Your task to perform on an android device: open app "PUBG MOBILE" Image 0: 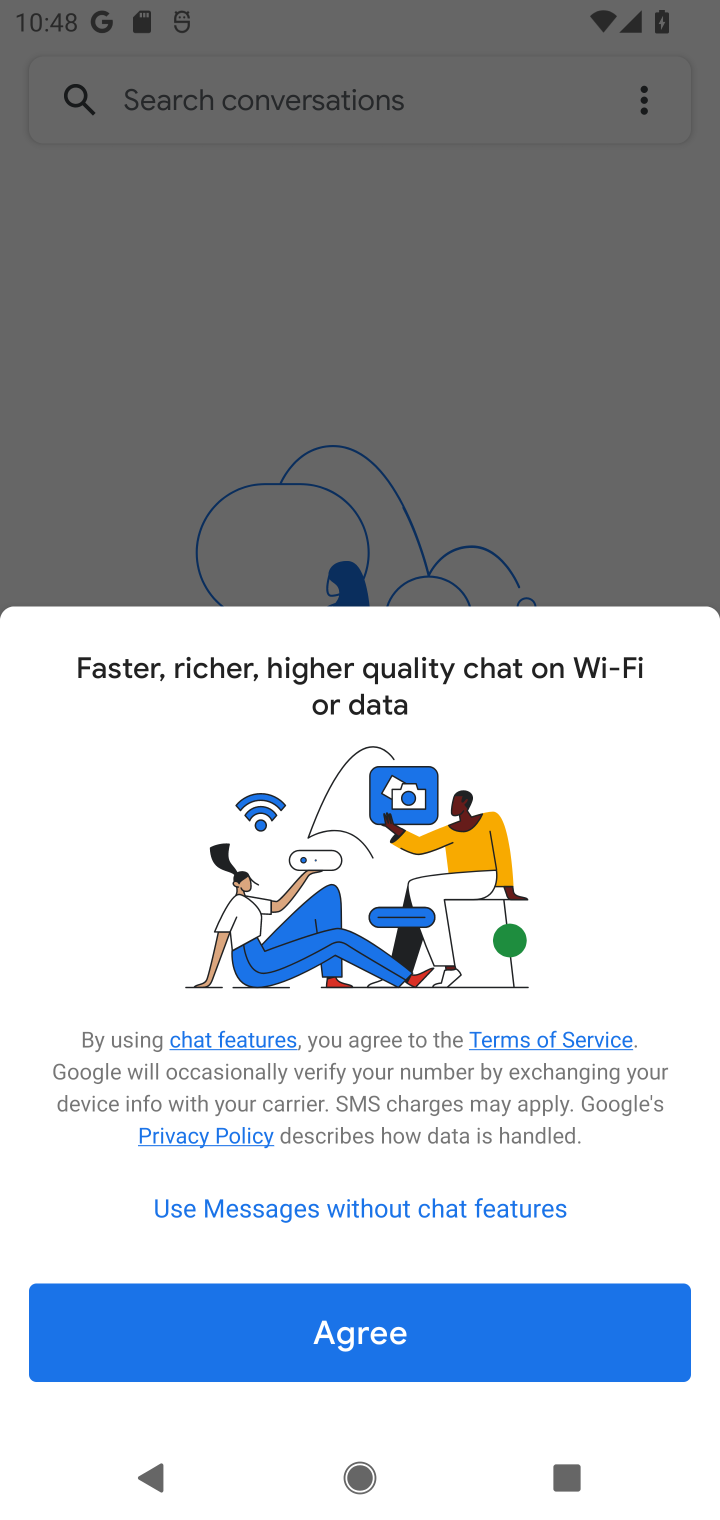
Step 0: press home button
Your task to perform on an android device: open app "PUBG MOBILE" Image 1: 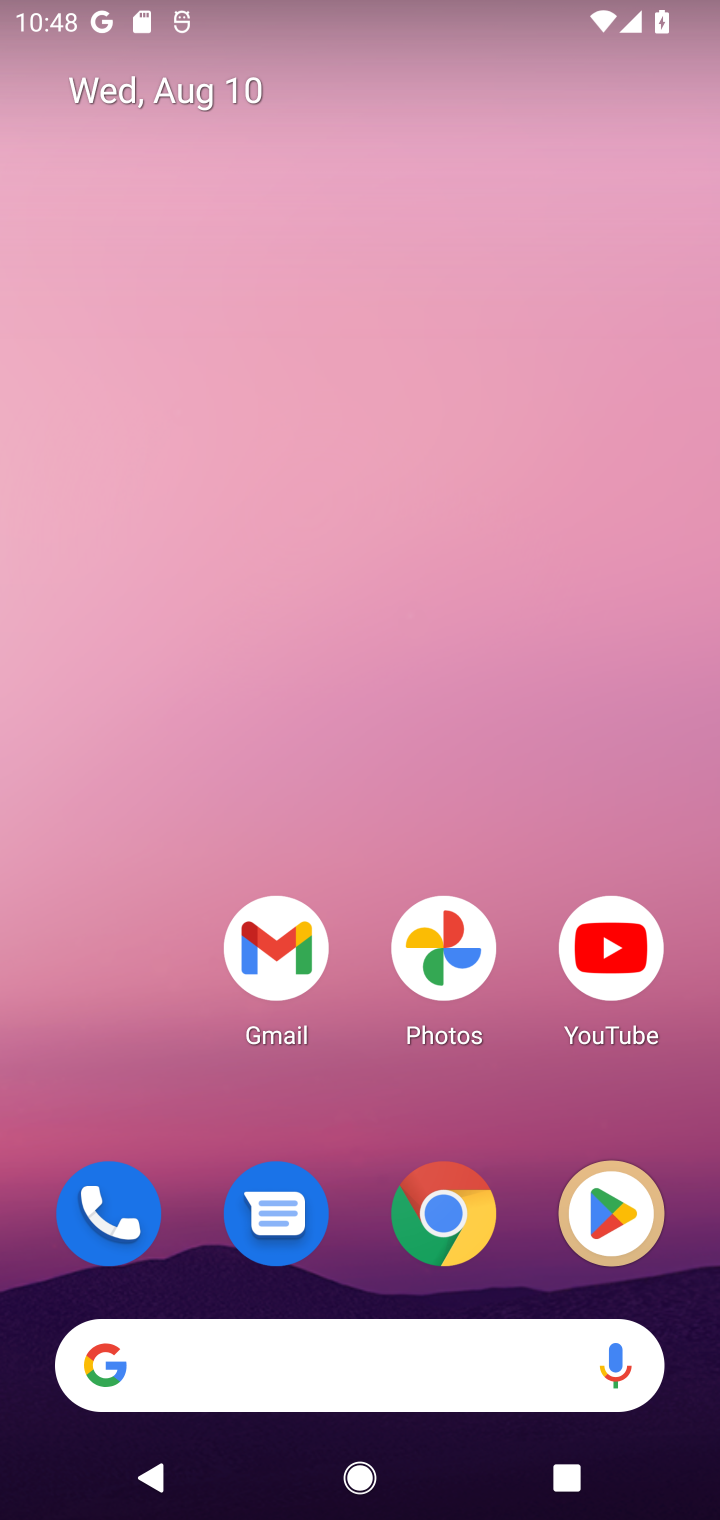
Step 1: drag from (240, 1365) to (265, 280)
Your task to perform on an android device: open app "PUBG MOBILE" Image 2: 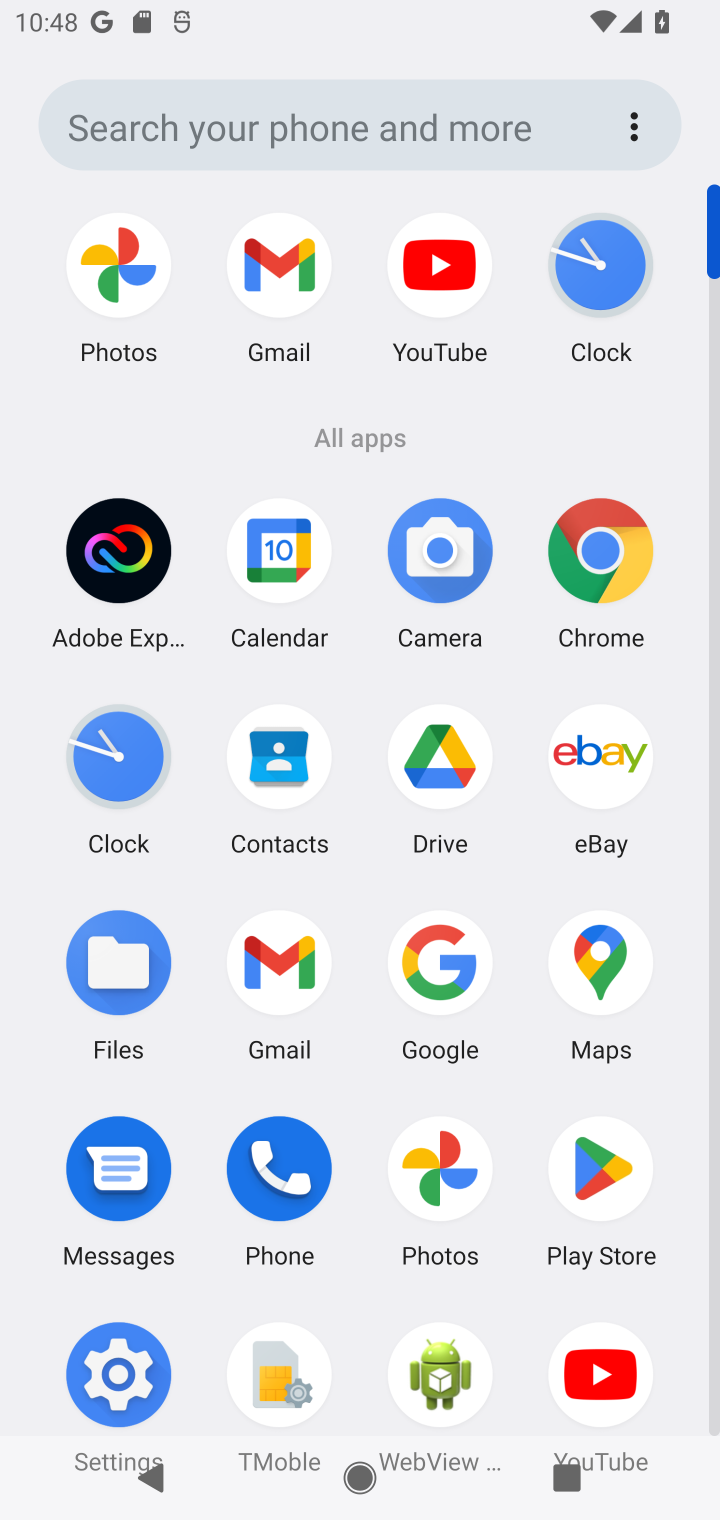
Step 2: click (601, 1174)
Your task to perform on an android device: open app "PUBG MOBILE" Image 3: 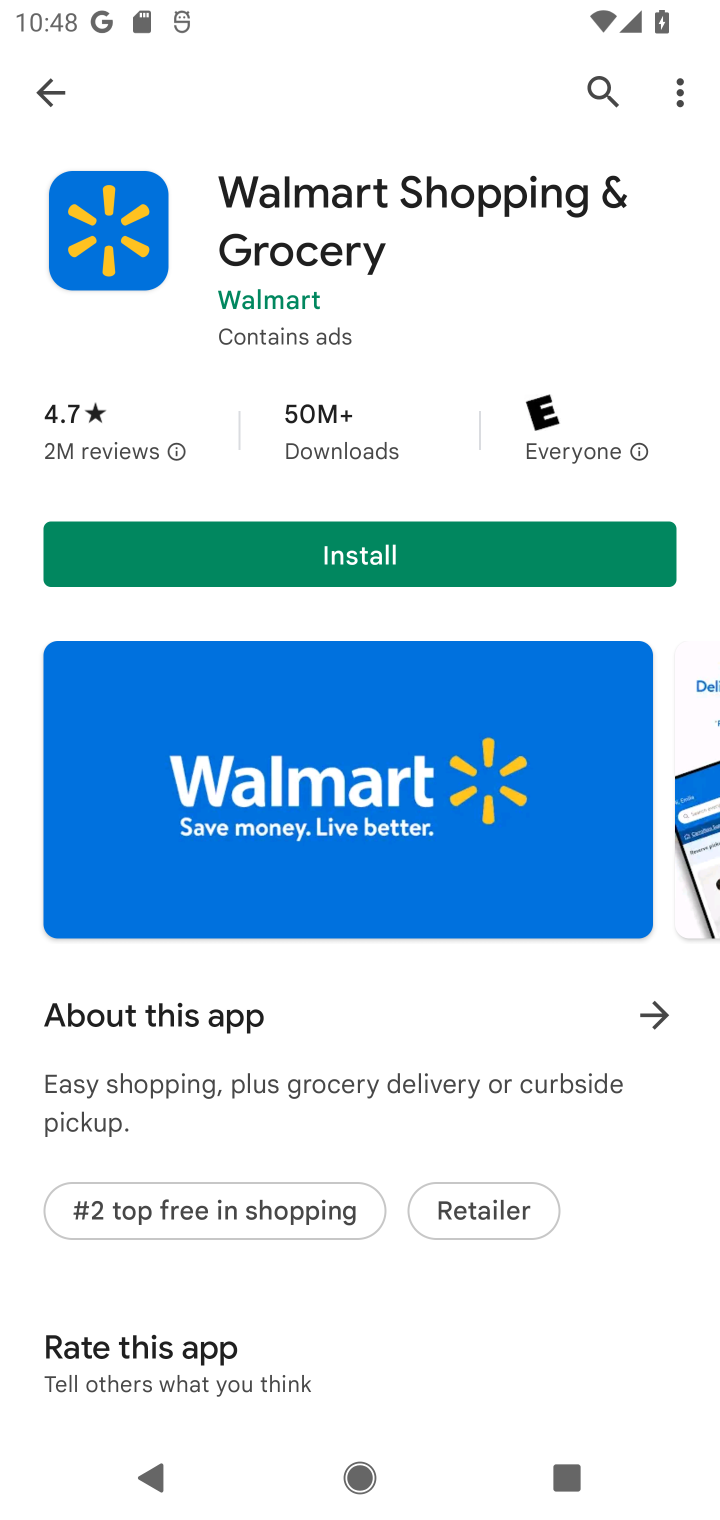
Step 3: press back button
Your task to perform on an android device: open app "PUBG MOBILE" Image 4: 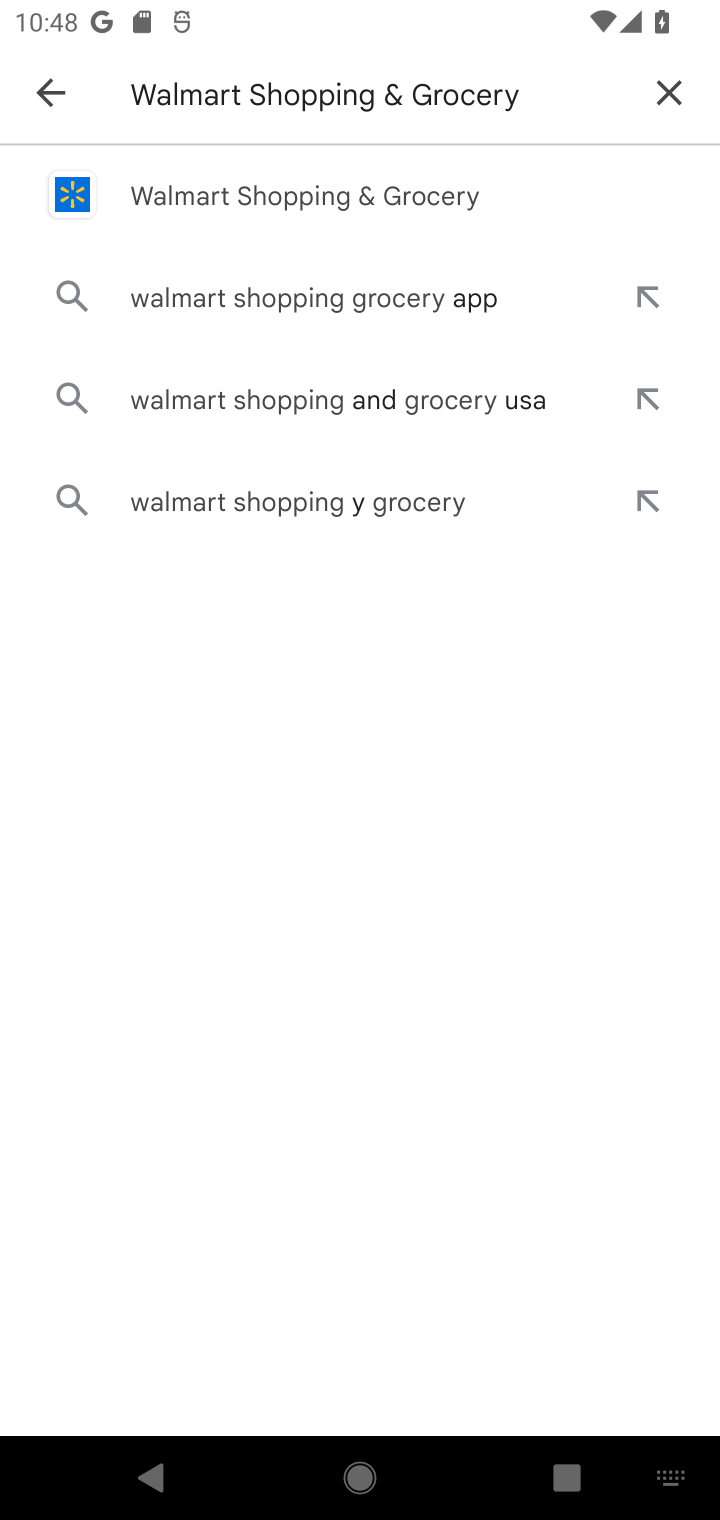
Step 4: press back button
Your task to perform on an android device: open app "PUBG MOBILE" Image 5: 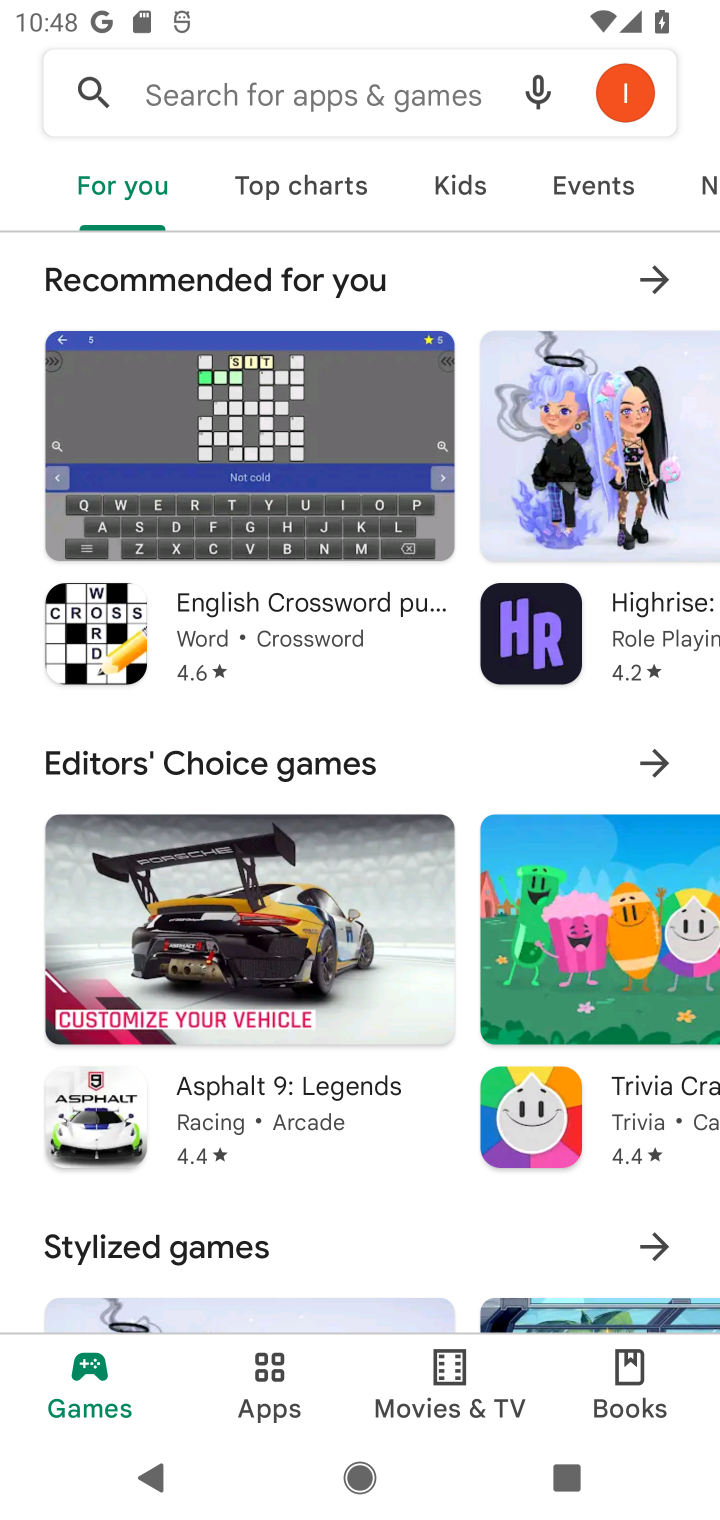
Step 5: click (255, 77)
Your task to perform on an android device: open app "PUBG MOBILE" Image 6: 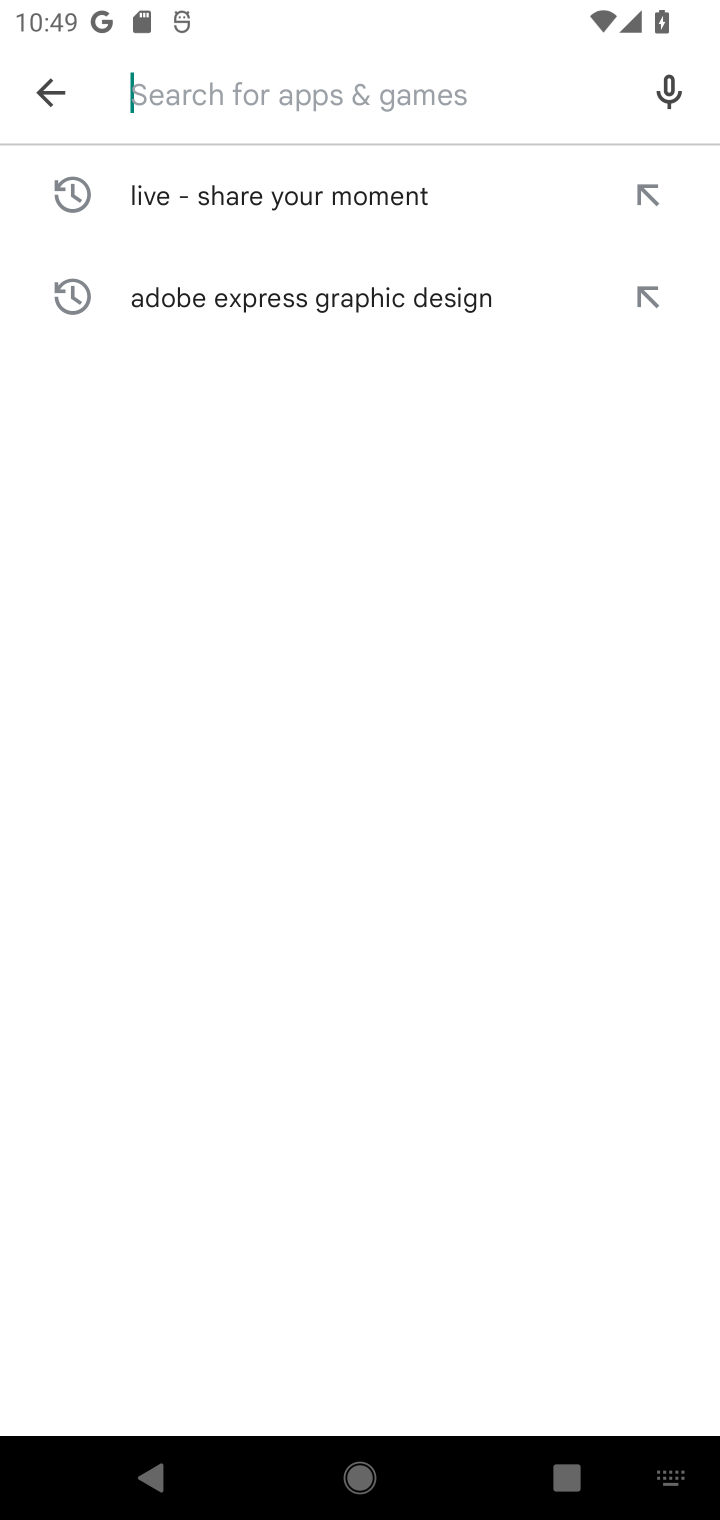
Step 6: click (186, 78)
Your task to perform on an android device: open app "PUBG MOBILE" Image 7: 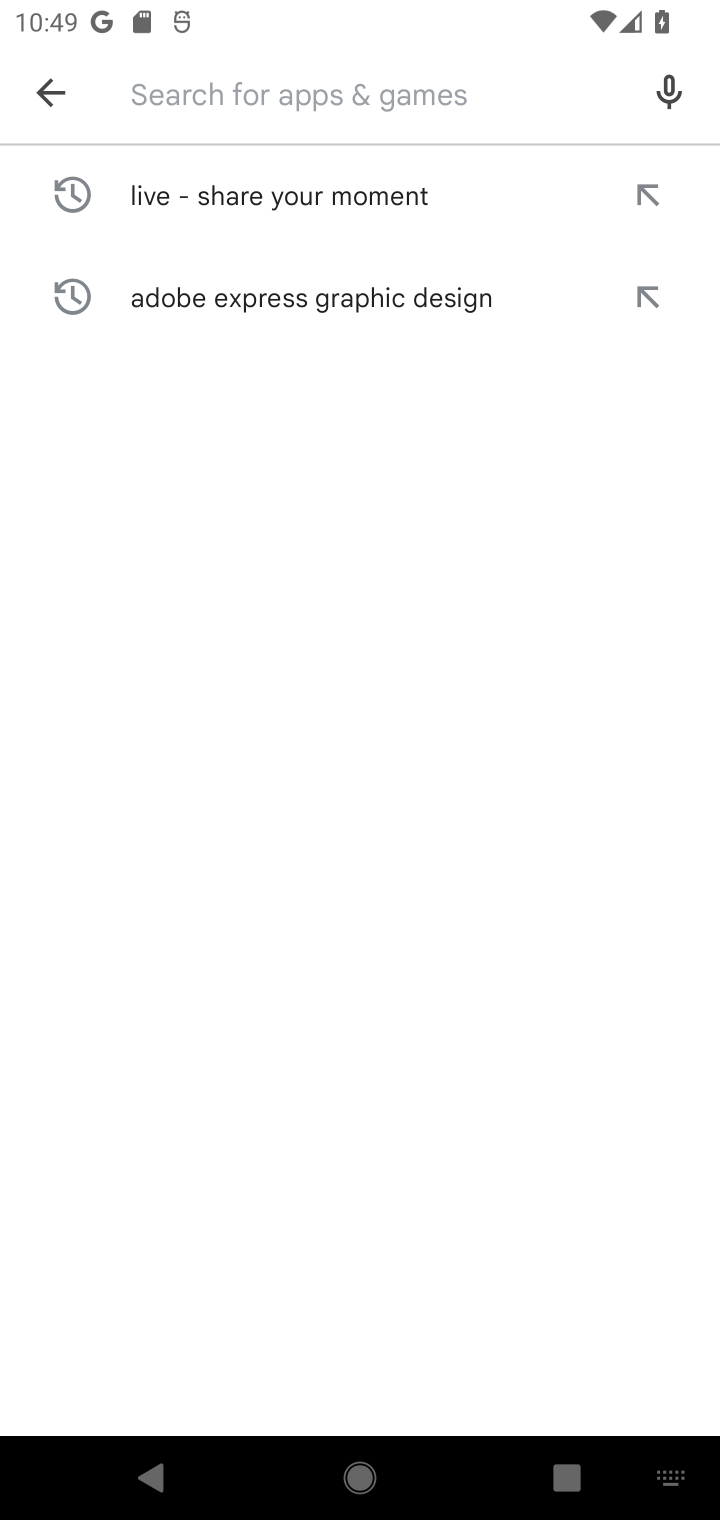
Step 7: type "PUBG MOBILE"
Your task to perform on an android device: open app "PUBG MOBILE" Image 8: 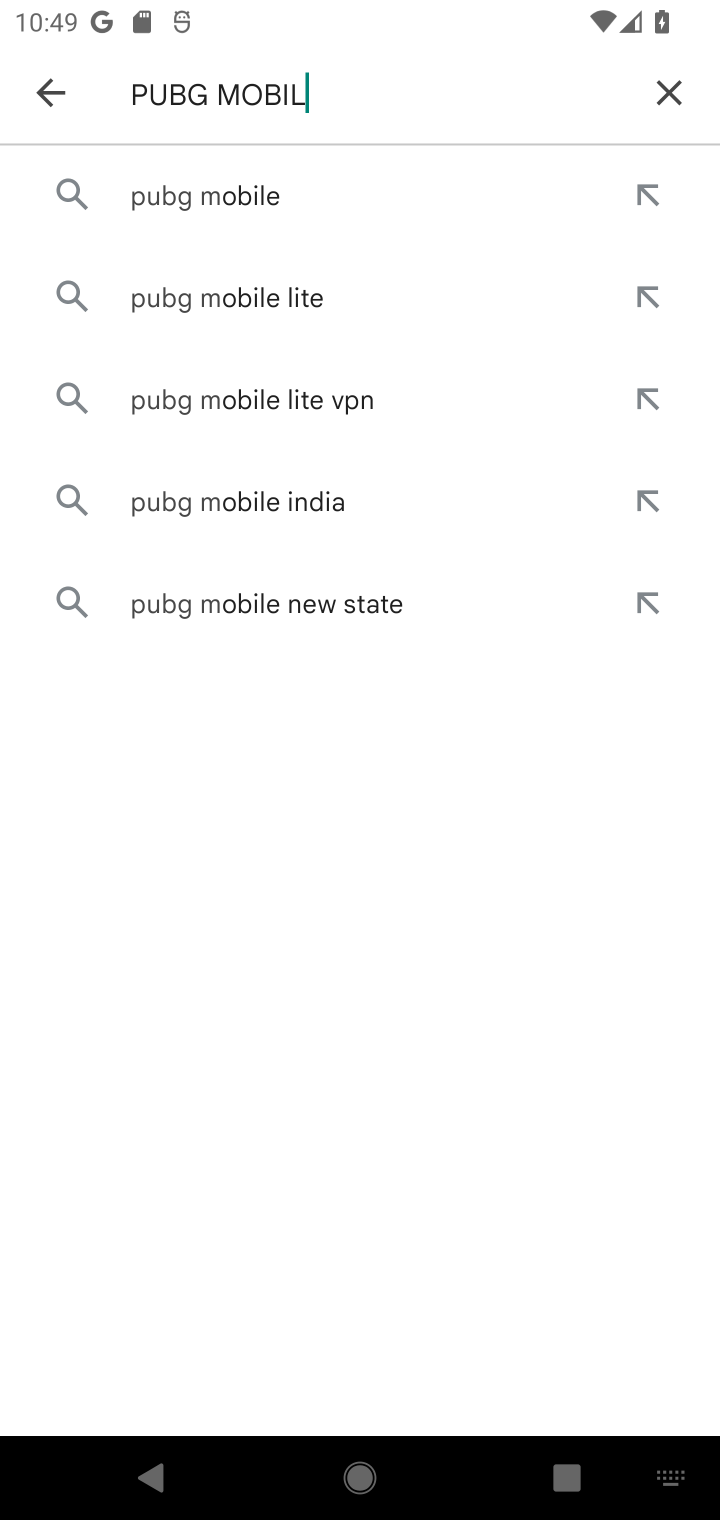
Step 8: type ""
Your task to perform on an android device: open app "PUBG MOBILE" Image 9: 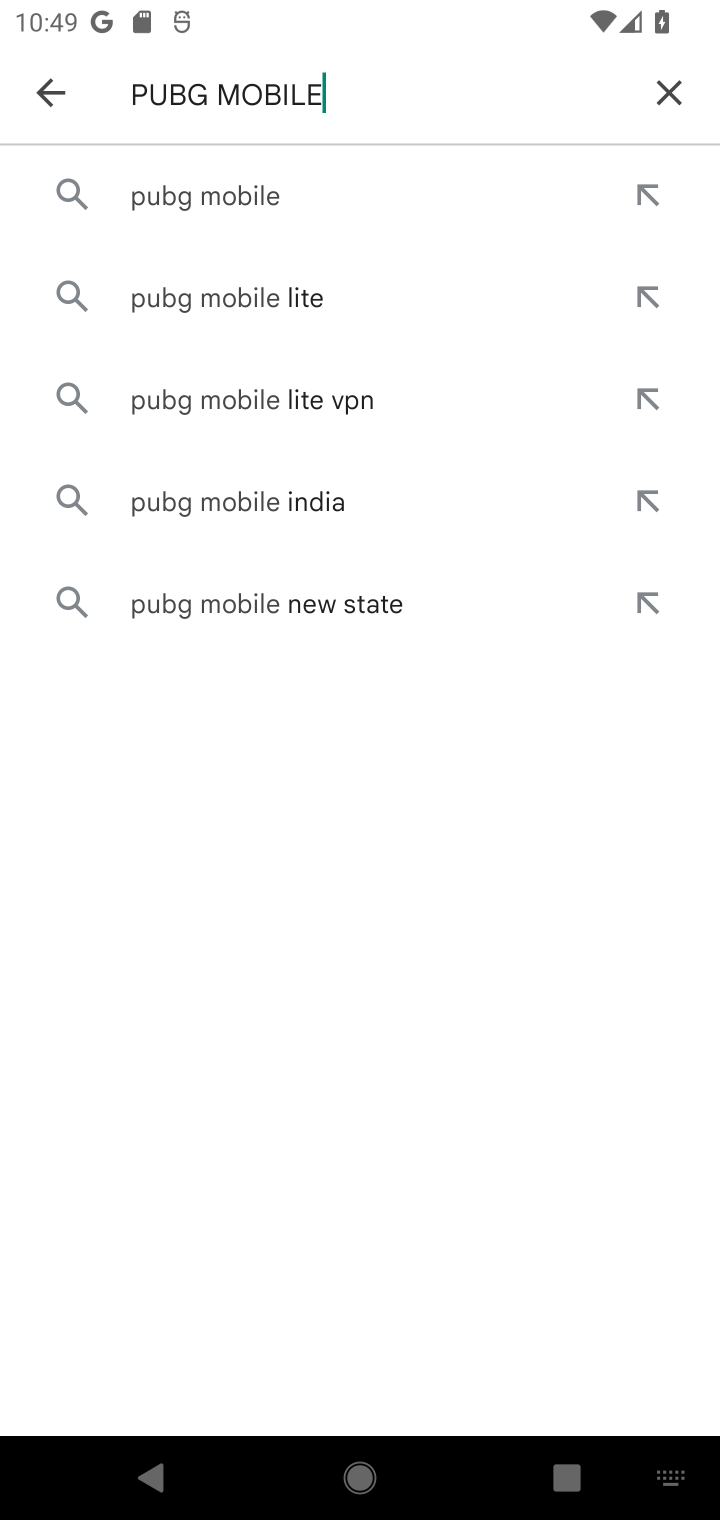
Step 9: click (263, 193)
Your task to perform on an android device: open app "PUBG MOBILE" Image 10: 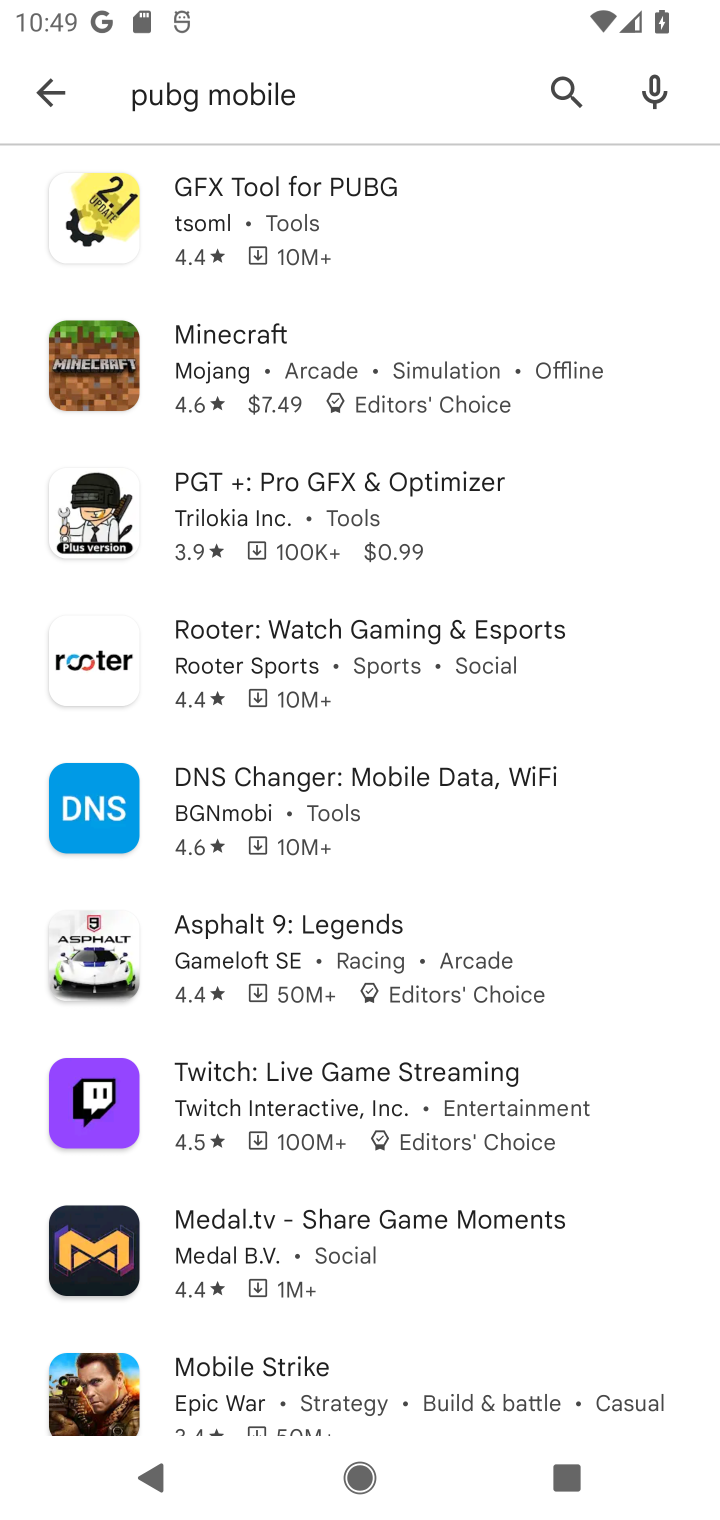
Step 10: task complete